Your task to perform on an android device: change the clock display to digital Image 0: 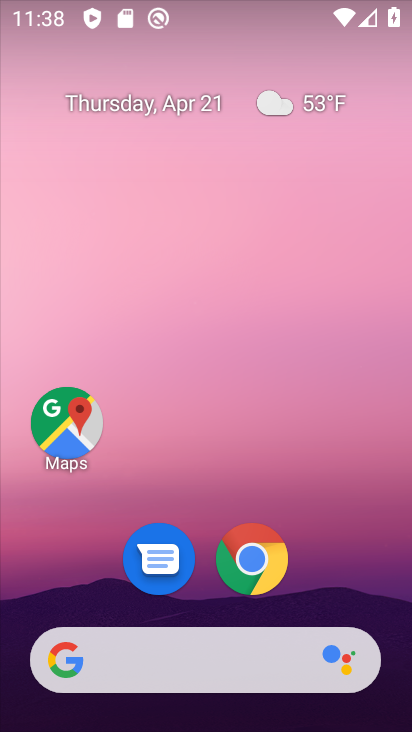
Step 0: drag from (384, 615) to (356, 11)
Your task to perform on an android device: change the clock display to digital Image 1: 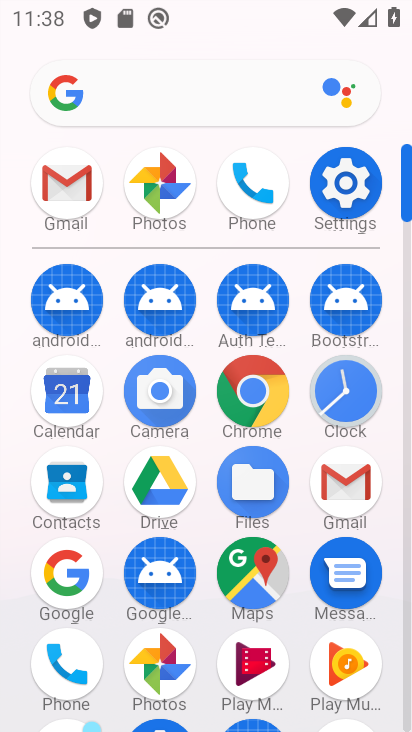
Step 1: click (341, 395)
Your task to perform on an android device: change the clock display to digital Image 2: 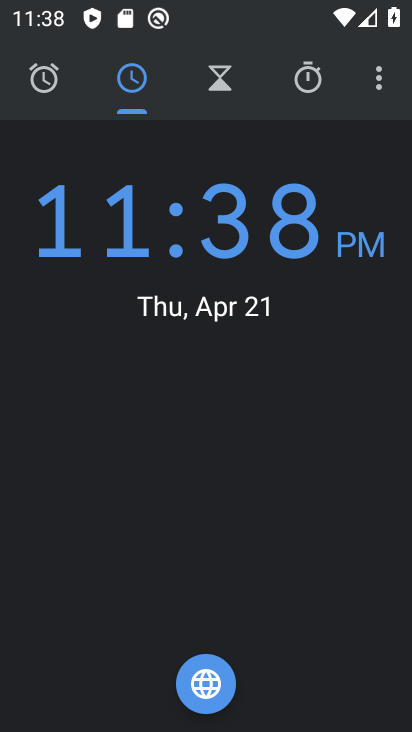
Step 2: click (381, 86)
Your task to perform on an android device: change the clock display to digital Image 3: 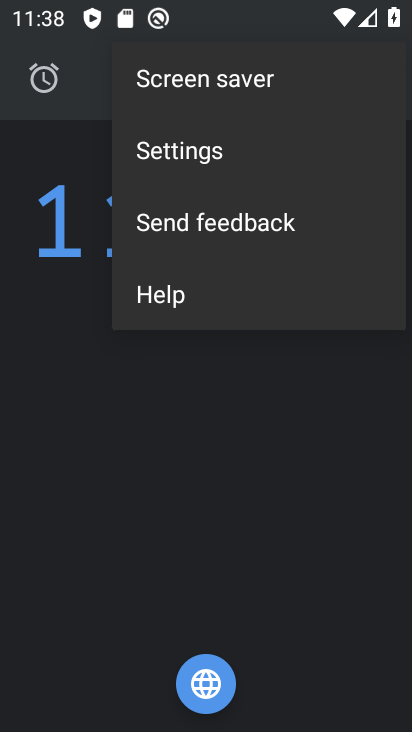
Step 3: click (197, 163)
Your task to perform on an android device: change the clock display to digital Image 4: 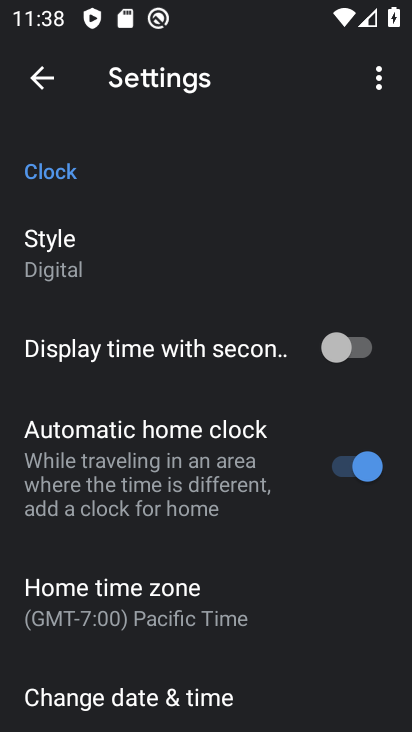
Step 4: task complete